Your task to perform on an android device: change your default location settings in chrome Image 0: 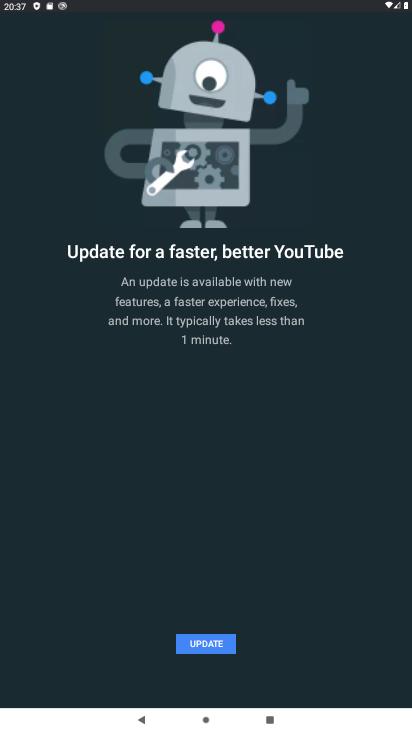
Step 0: press home button
Your task to perform on an android device: change your default location settings in chrome Image 1: 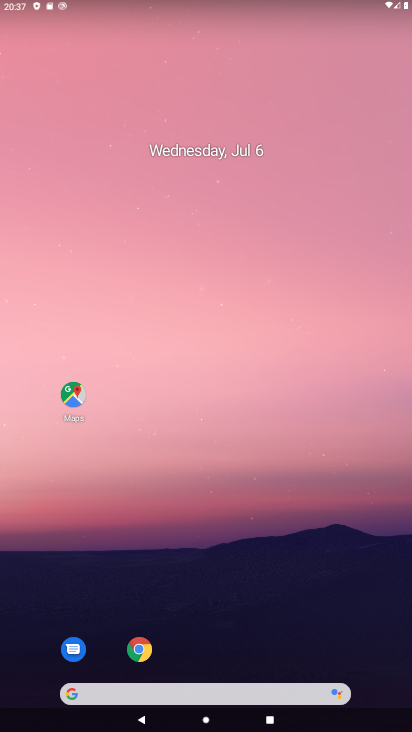
Step 1: click (135, 651)
Your task to perform on an android device: change your default location settings in chrome Image 2: 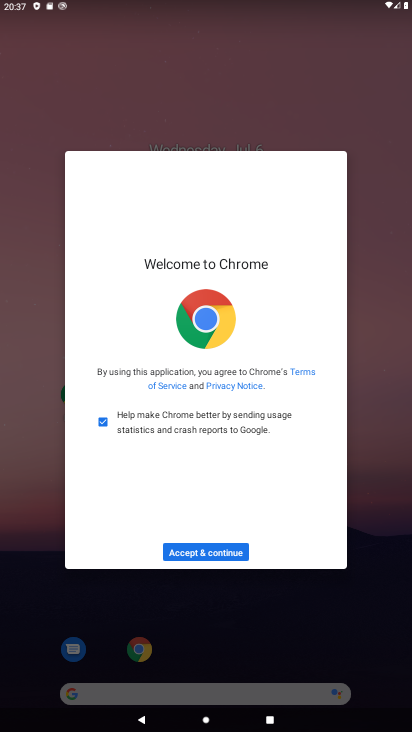
Step 2: click (224, 548)
Your task to perform on an android device: change your default location settings in chrome Image 3: 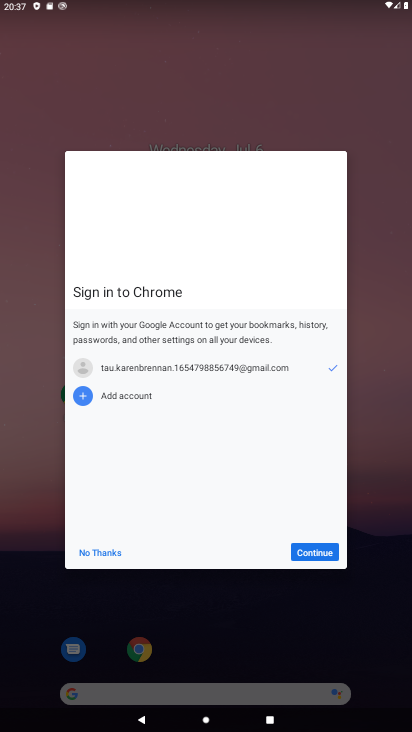
Step 3: click (291, 551)
Your task to perform on an android device: change your default location settings in chrome Image 4: 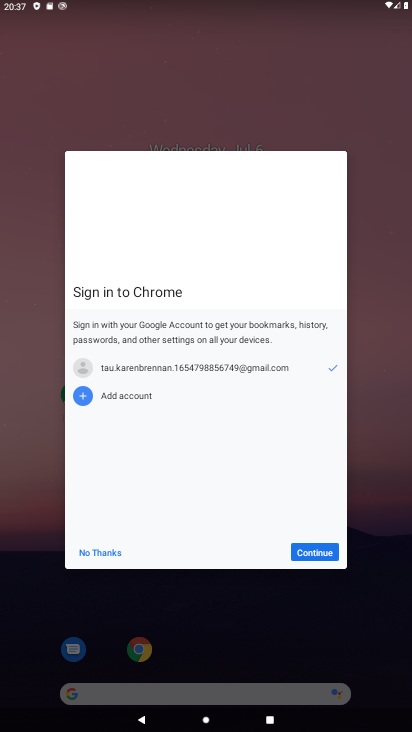
Step 4: click (320, 551)
Your task to perform on an android device: change your default location settings in chrome Image 5: 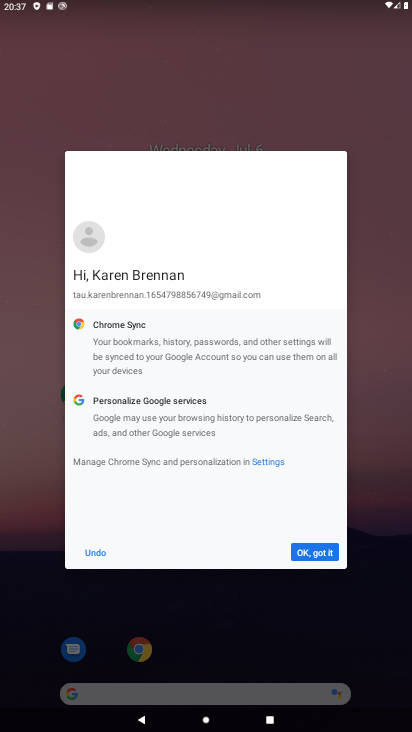
Step 5: click (322, 552)
Your task to perform on an android device: change your default location settings in chrome Image 6: 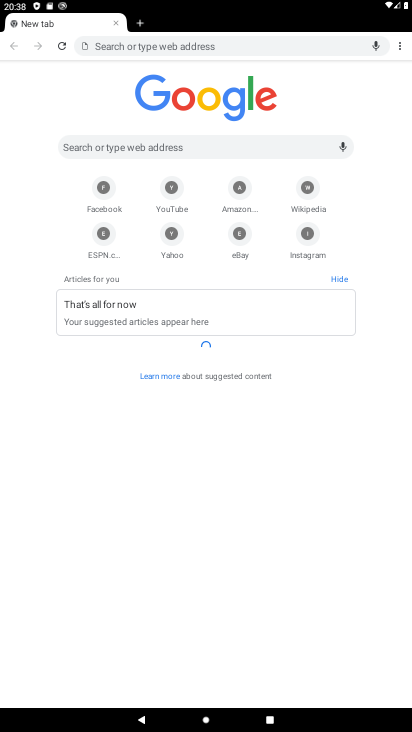
Step 6: click (392, 52)
Your task to perform on an android device: change your default location settings in chrome Image 7: 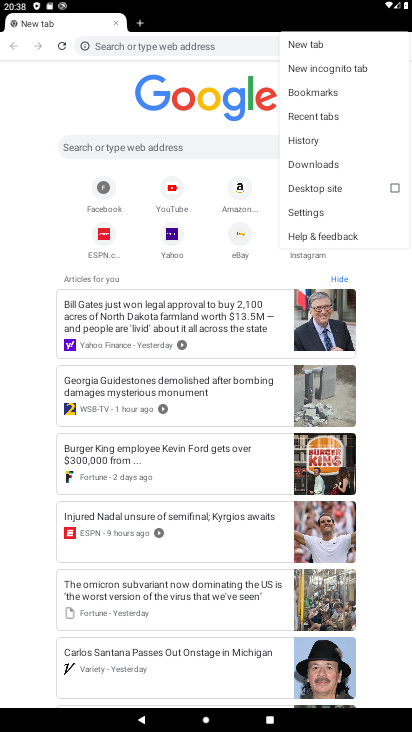
Step 7: click (319, 212)
Your task to perform on an android device: change your default location settings in chrome Image 8: 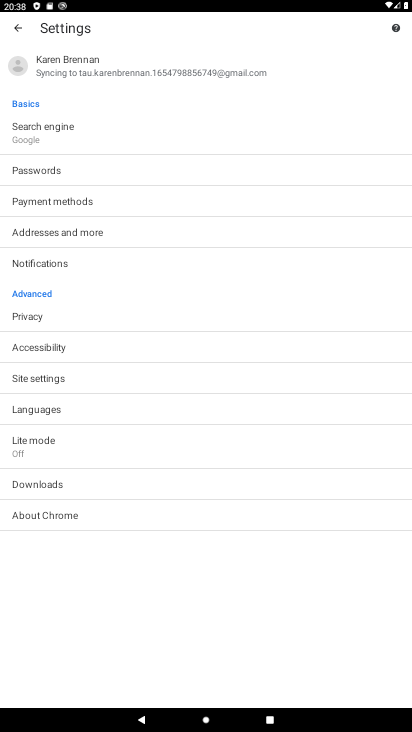
Step 8: click (42, 379)
Your task to perform on an android device: change your default location settings in chrome Image 9: 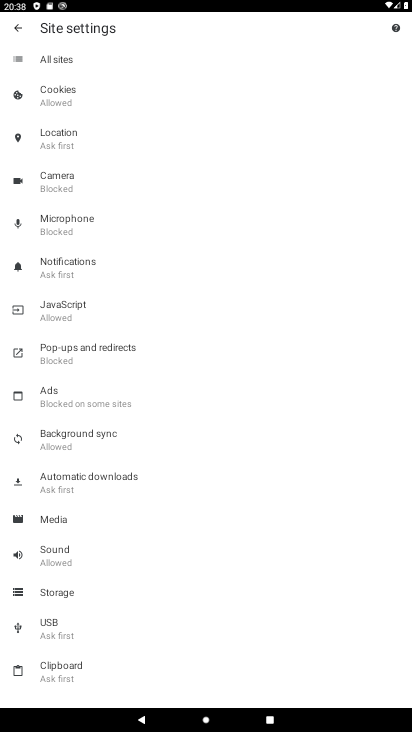
Step 9: click (60, 134)
Your task to perform on an android device: change your default location settings in chrome Image 10: 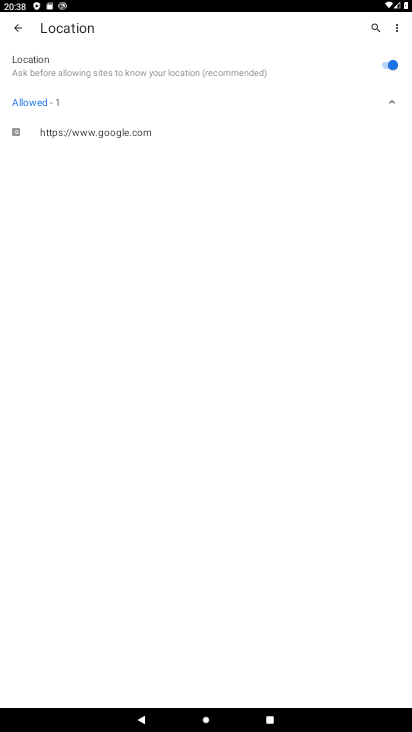
Step 10: click (387, 63)
Your task to perform on an android device: change your default location settings in chrome Image 11: 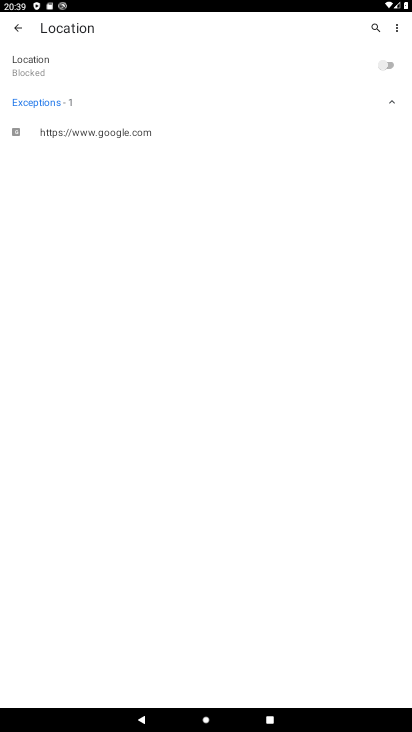
Step 11: task complete